Your task to perform on an android device: turn on javascript in the chrome app Image 0: 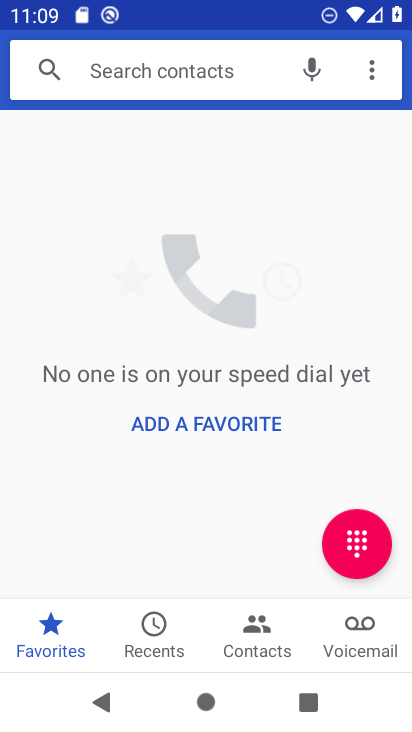
Step 0: press home button
Your task to perform on an android device: turn on javascript in the chrome app Image 1: 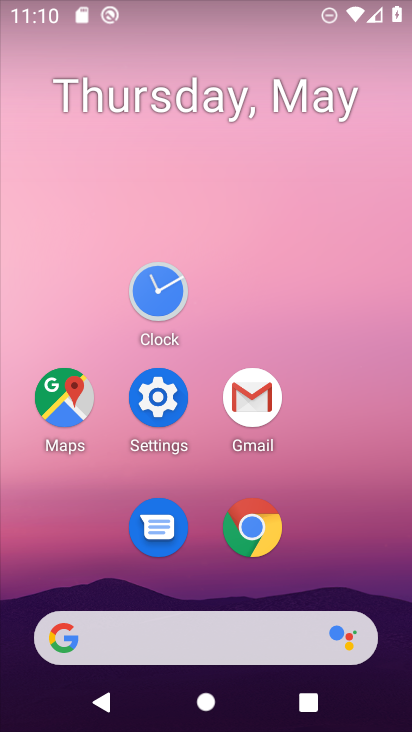
Step 1: click (149, 406)
Your task to perform on an android device: turn on javascript in the chrome app Image 2: 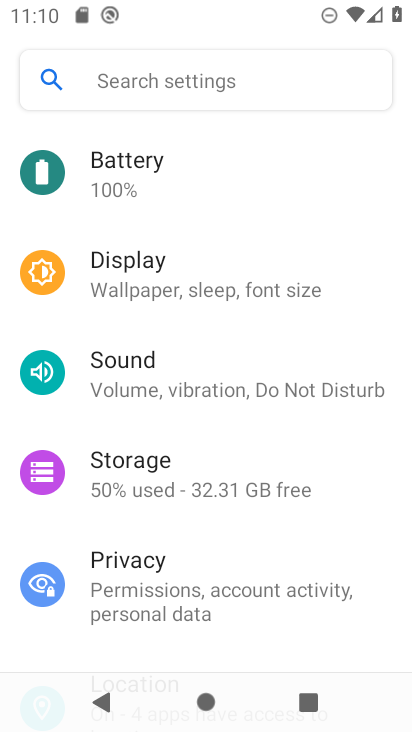
Step 2: drag from (143, 627) to (274, 203)
Your task to perform on an android device: turn on javascript in the chrome app Image 3: 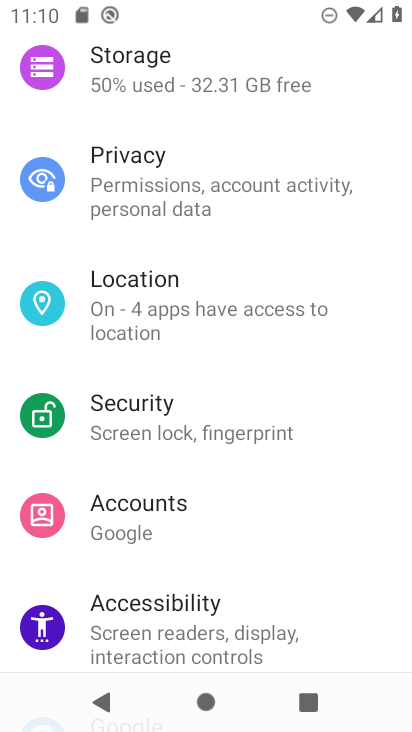
Step 3: press home button
Your task to perform on an android device: turn on javascript in the chrome app Image 4: 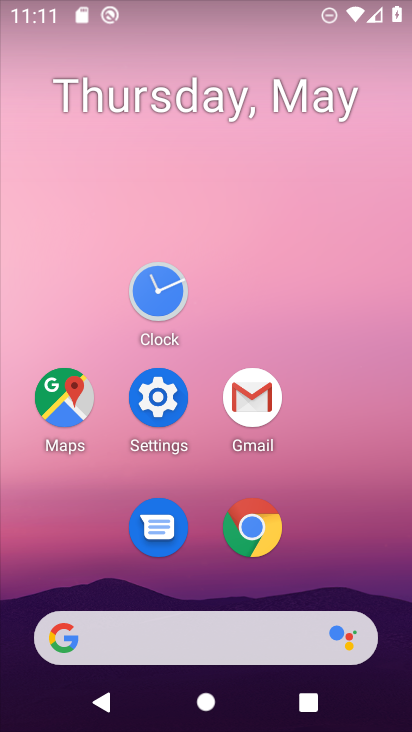
Step 4: click (188, 396)
Your task to perform on an android device: turn on javascript in the chrome app Image 5: 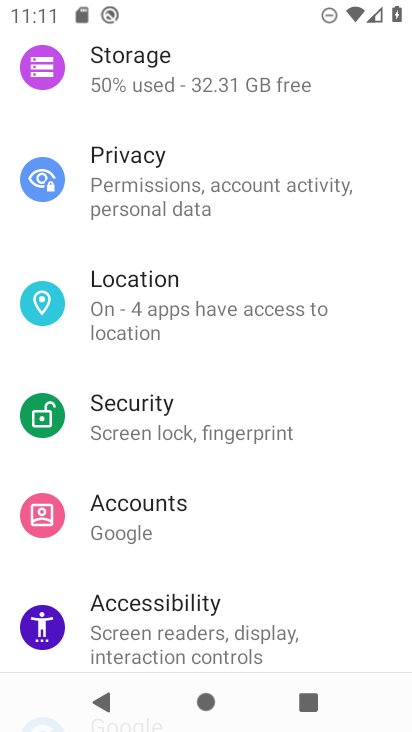
Step 5: press home button
Your task to perform on an android device: turn on javascript in the chrome app Image 6: 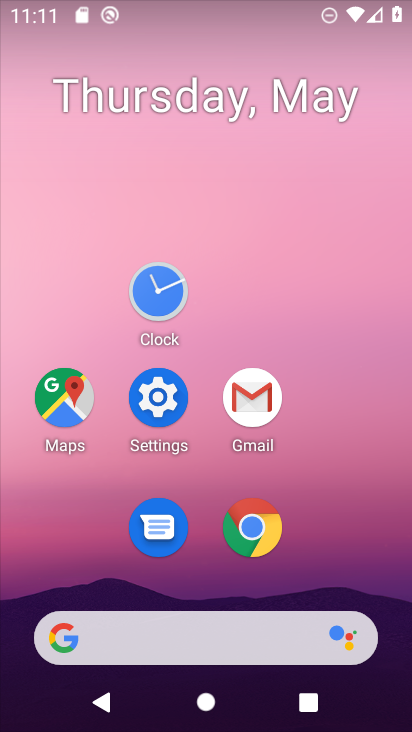
Step 6: click (259, 542)
Your task to perform on an android device: turn on javascript in the chrome app Image 7: 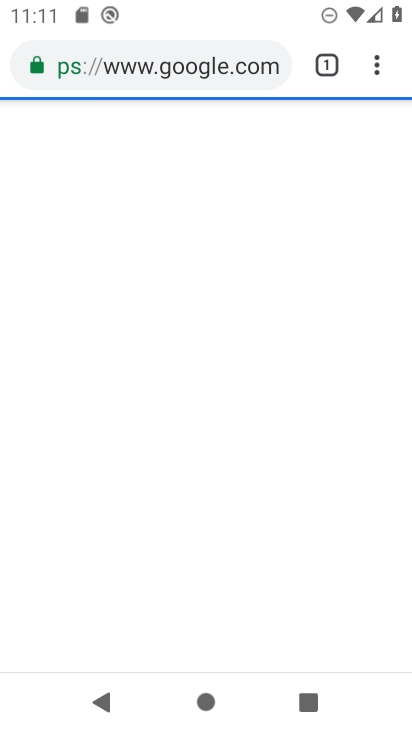
Step 7: click (374, 69)
Your task to perform on an android device: turn on javascript in the chrome app Image 8: 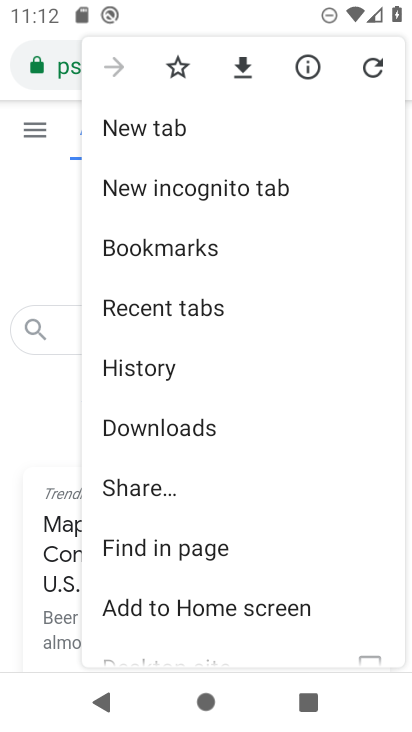
Step 8: drag from (258, 509) to (280, 265)
Your task to perform on an android device: turn on javascript in the chrome app Image 9: 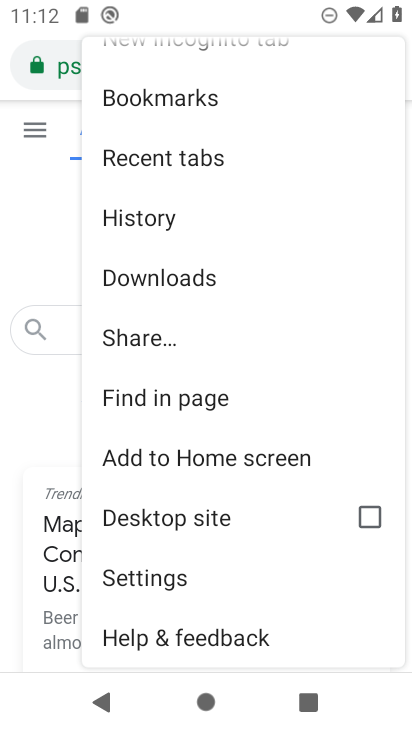
Step 9: click (236, 560)
Your task to perform on an android device: turn on javascript in the chrome app Image 10: 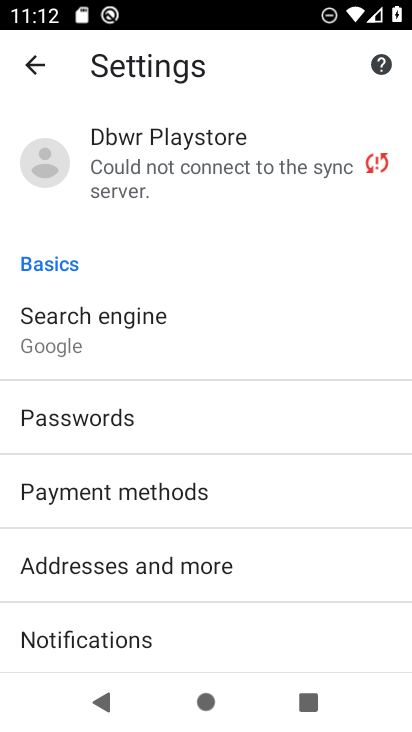
Step 10: drag from (128, 587) to (246, 190)
Your task to perform on an android device: turn on javascript in the chrome app Image 11: 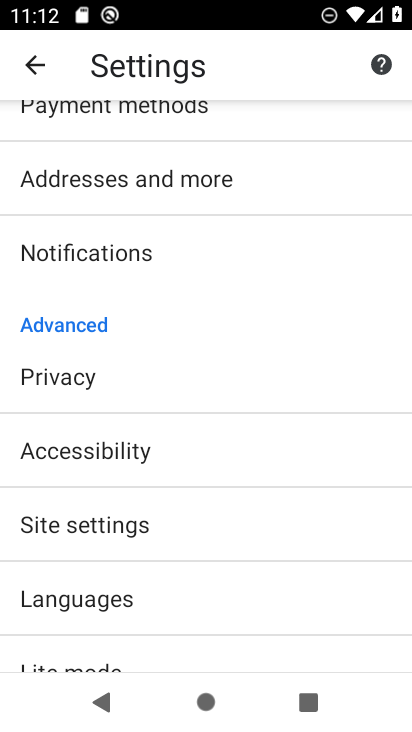
Step 11: click (228, 544)
Your task to perform on an android device: turn on javascript in the chrome app Image 12: 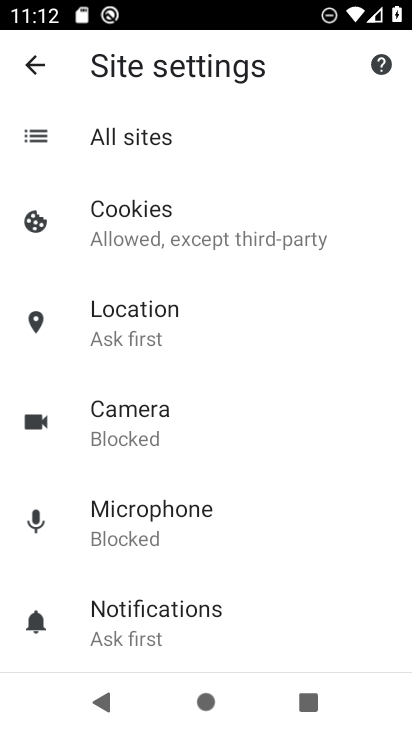
Step 12: drag from (187, 642) to (233, 244)
Your task to perform on an android device: turn on javascript in the chrome app Image 13: 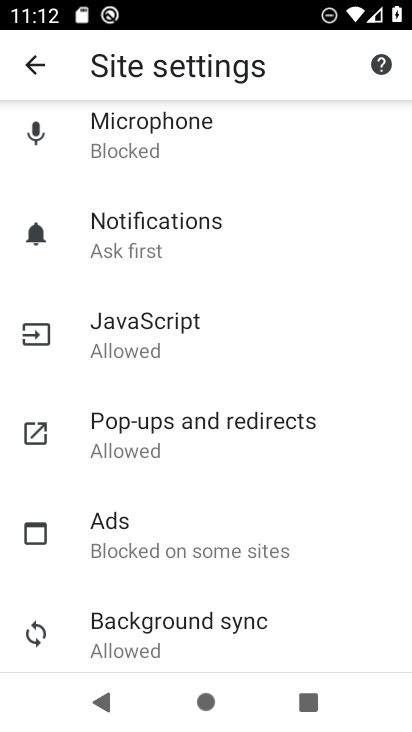
Step 13: click (174, 321)
Your task to perform on an android device: turn on javascript in the chrome app Image 14: 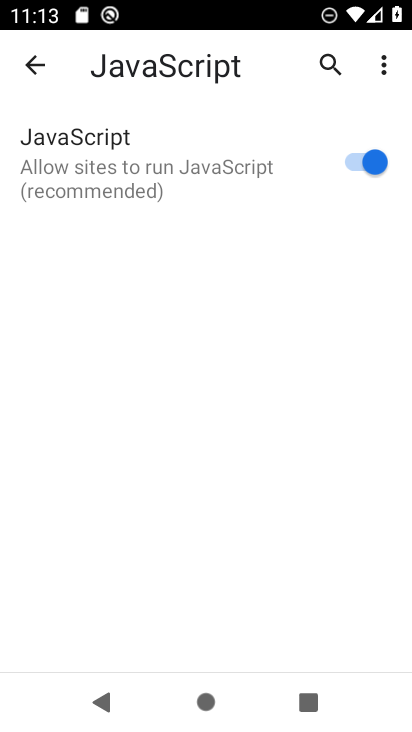
Step 14: click (159, 181)
Your task to perform on an android device: turn on javascript in the chrome app Image 15: 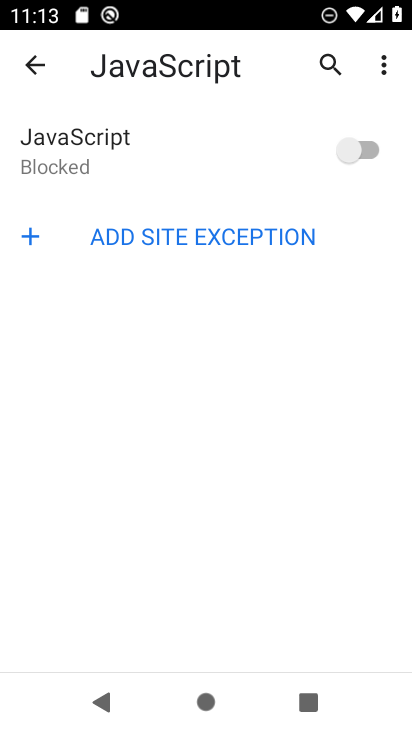
Step 15: task complete